Your task to perform on an android device: Open calendar and show me the fourth week of next month Image 0: 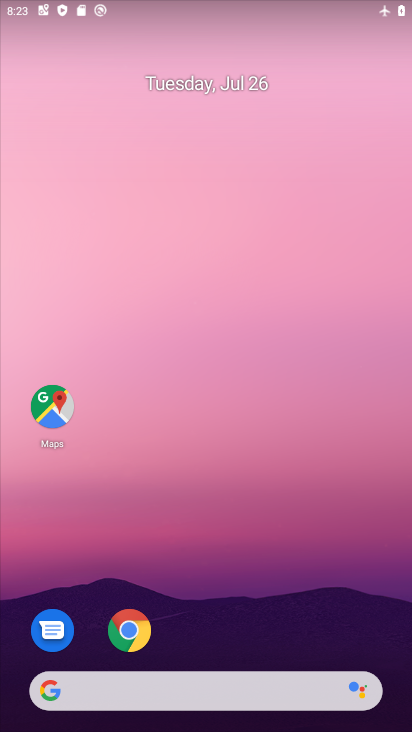
Step 0: drag from (238, 645) to (233, 162)
Your task to perform on an android device: Open calendar and show me the fourth week of next month Image 1: 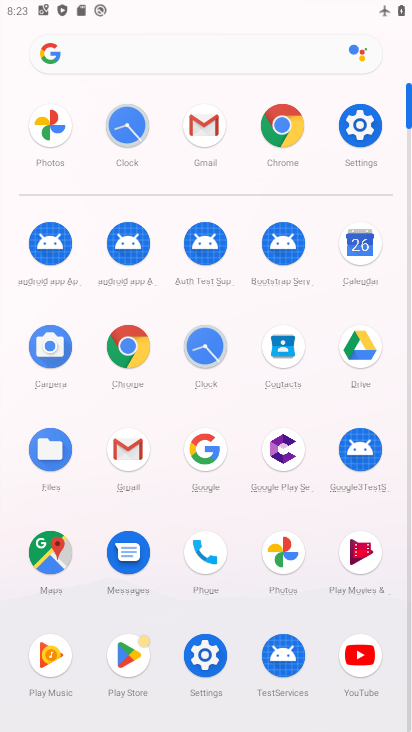
Step 1: click (361, 268)
Your task to perform on an android device: Open calendar and show me the fourth week of next month Image 2: 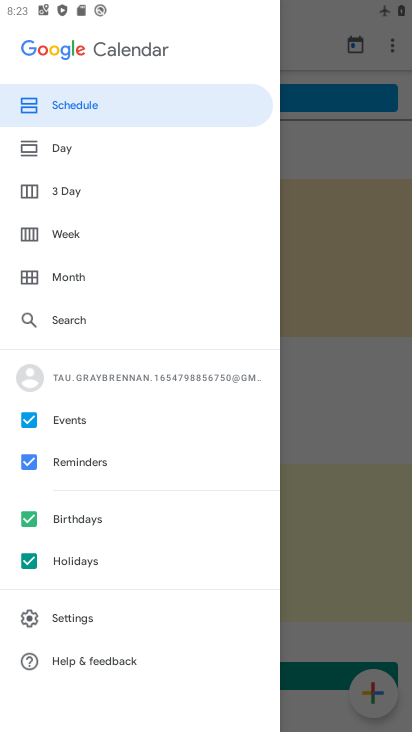
Step 2: task complete